Your task to perform on an android device: open a bookmark in the chrome app Image 0: 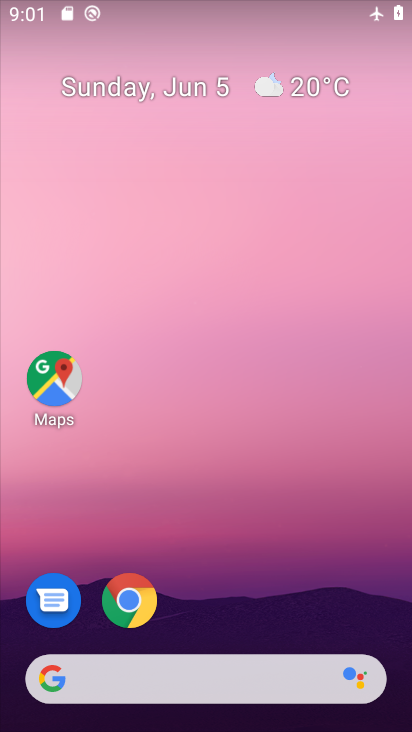
Step 0: click (132, 591)
Your task to perform on an android device: open a bookmark in the chrome app Image 1: 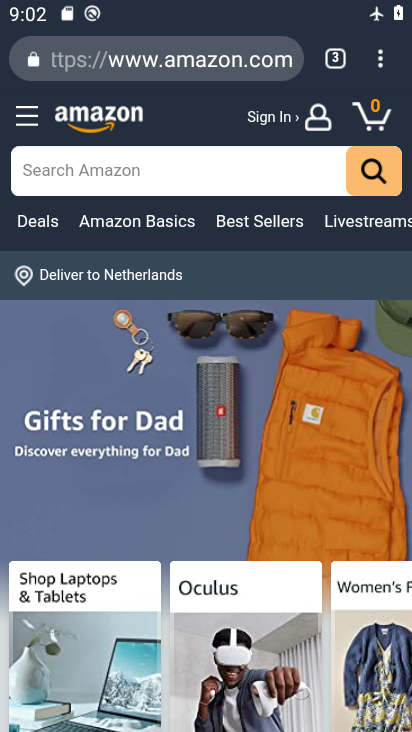
Step 1: click (381, 64)
Your task to perform on an android device: open a bookmark in the chrome app Image 2: 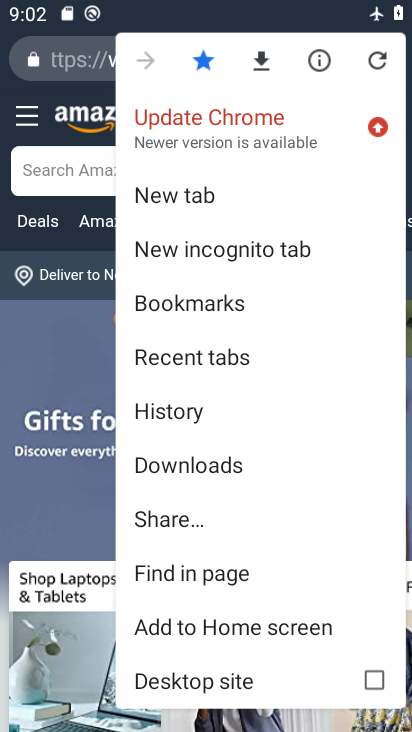
Step 2: click (233, 307)
Your task to perform on an android device: open a bookmark in the chrome app Image 3: 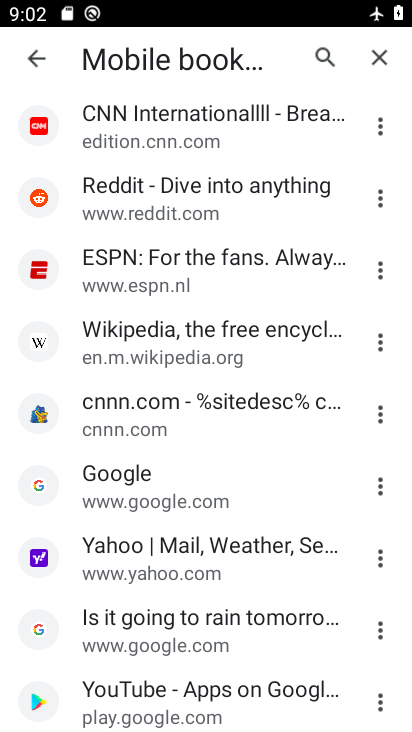
Step 3: click (210, 336)
Your task to perform on an android device: open a bookmark in the chrome app Image 4: 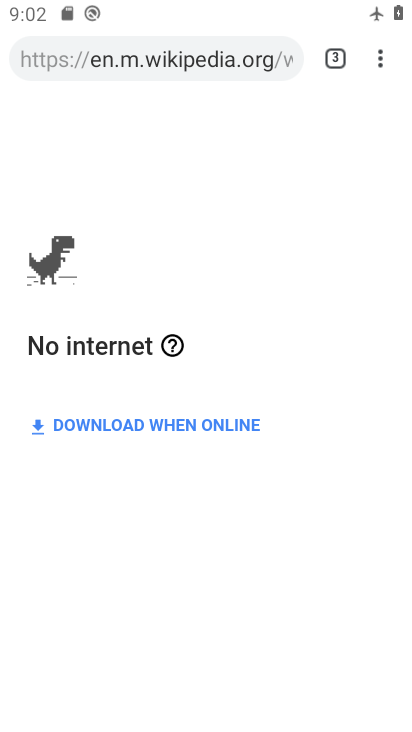
Step 4: task complete